Your task to perform on an android device: Turn on the flashlight Image 0: 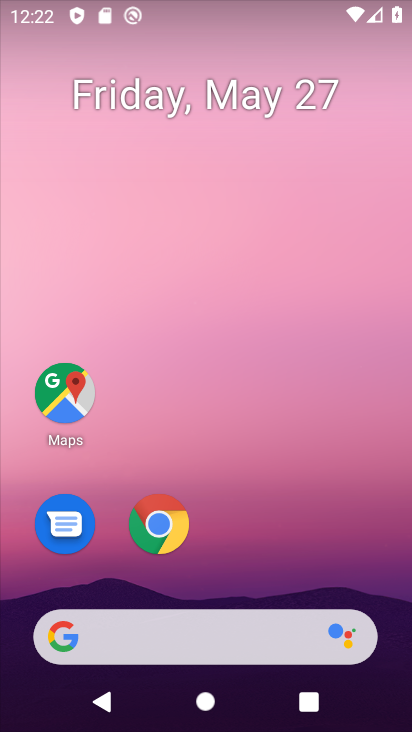
Step 0: drag from (258, 525) to (308, 0)
Your task to perform on an android device: Turn on the flashlight Image 1: 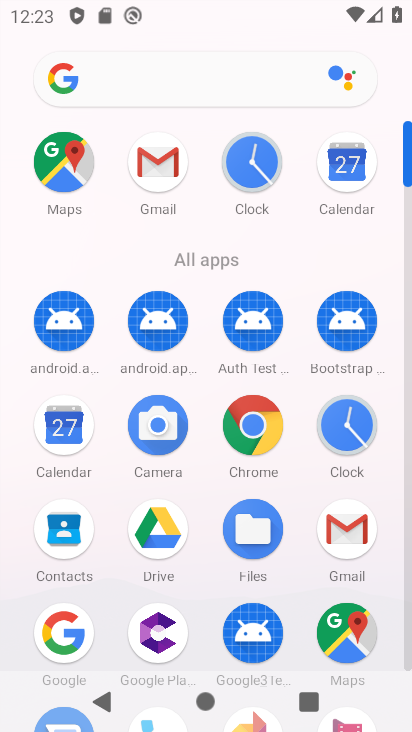
Step 1: drag from (203, 480) to (249, 125)
Your task to perform on an android device: Turn on the flashlight Image 2: 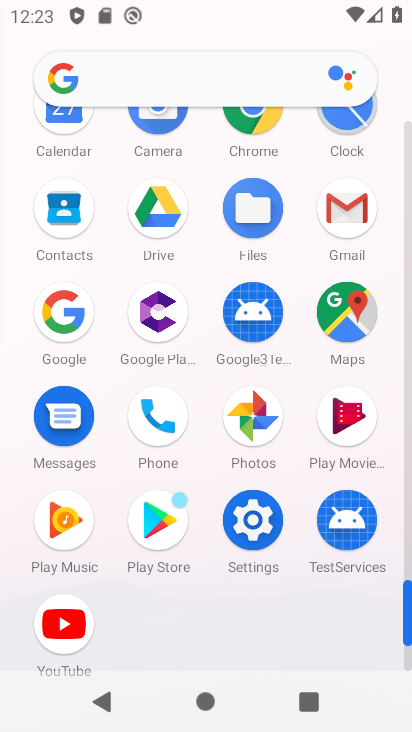
Step 2: click (241, 509)
Your task to perform on an android device: Turn on the flashlight Image 3: 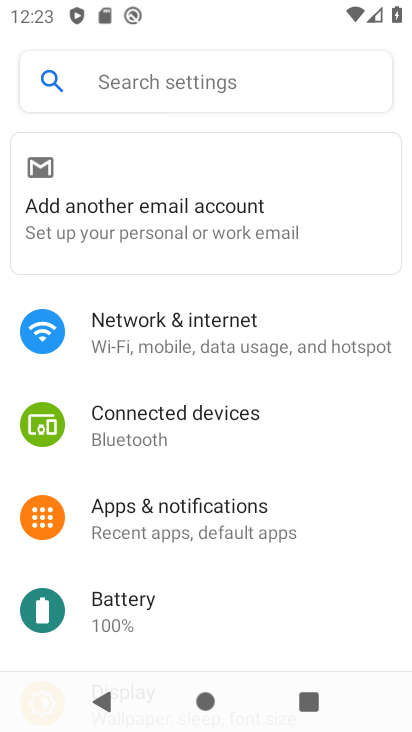
Step 3: click (270, 70)
Your task to perform on an android device: Turn on the flashlight Image 4: 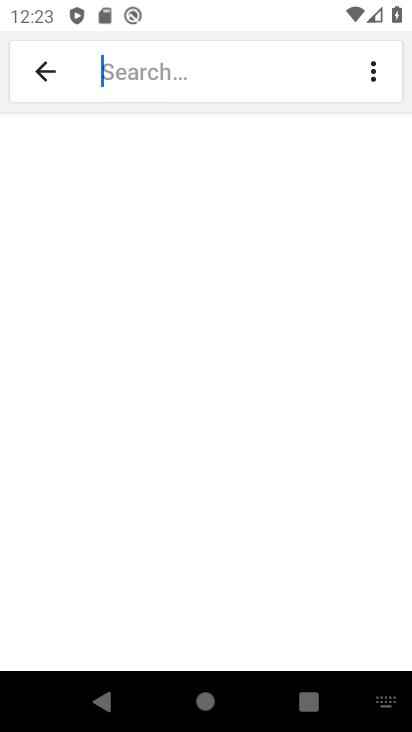
Step 4: type ""
Your task to perform on an android device: Turn on the flashlight Image 5: 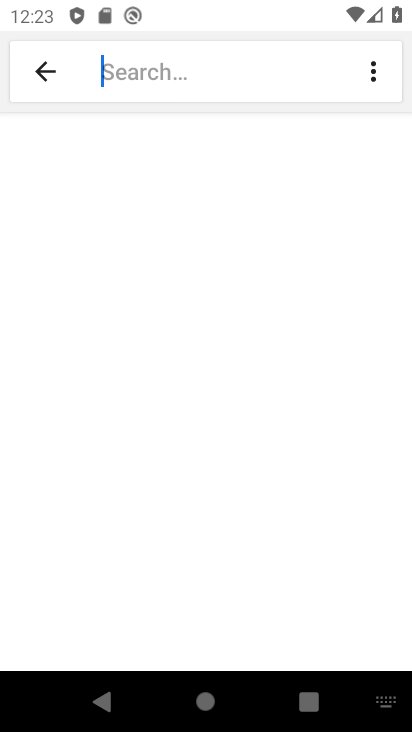
Step 5: type "Flashlight"
Your task to perform on an android device: Turn on the flashlight Image 6: 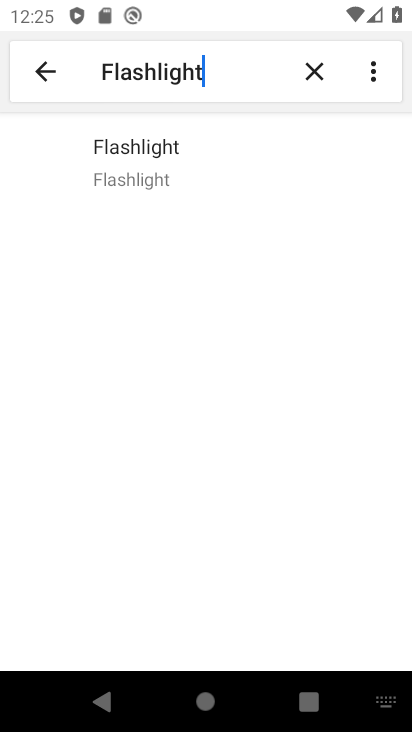
Step 6: task complete